Your task to perform on an android device: snooze an email in the gmail app Image 0: 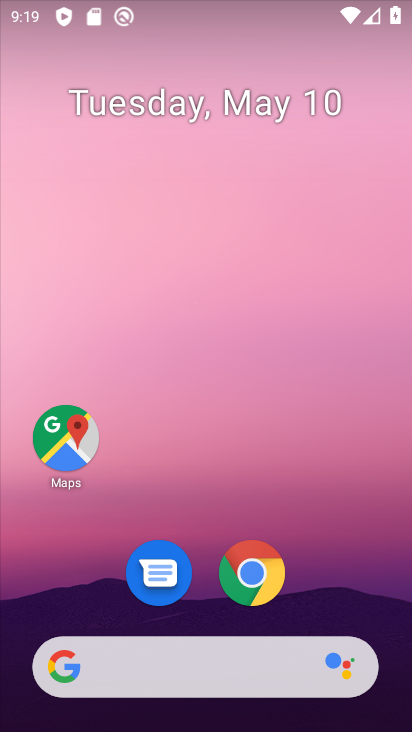
Step 0: drag from (192, 519) to (129, 140)
Your task to perform on an android device: snooze an email in the gmail app Image 1: 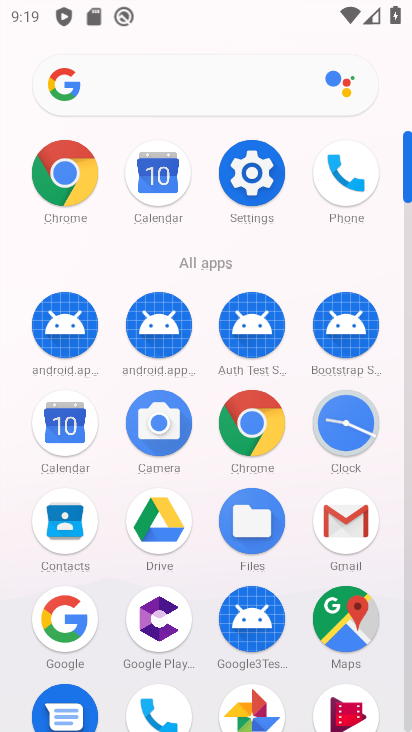
Step 1: click (336, 518)
Your task to perform on an android device: snooze an email in the gmail app Image 2: 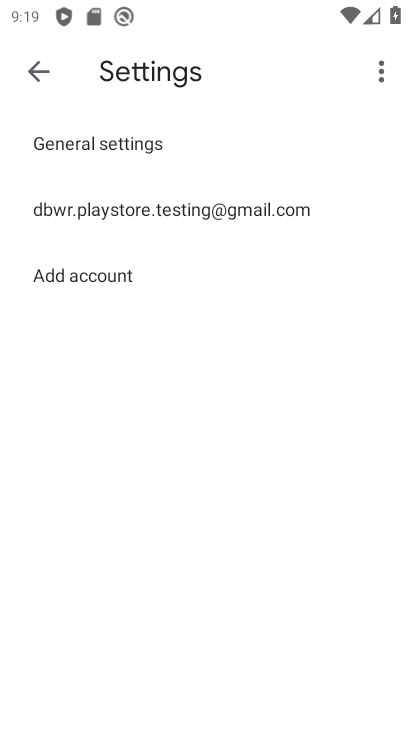
Step 2: click (36, 70)
Your task to perform on an android device: snooze an email in the gmail app Image 3: 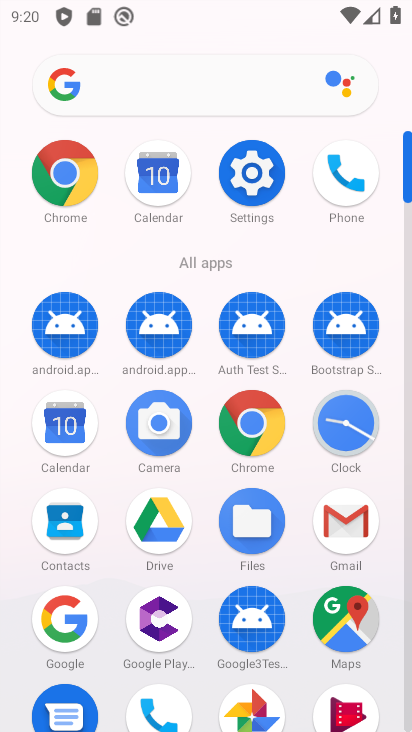
Step 3: click (347, 521)
Your task to perform on an android device: snooze an email in the gmail app Image 4: 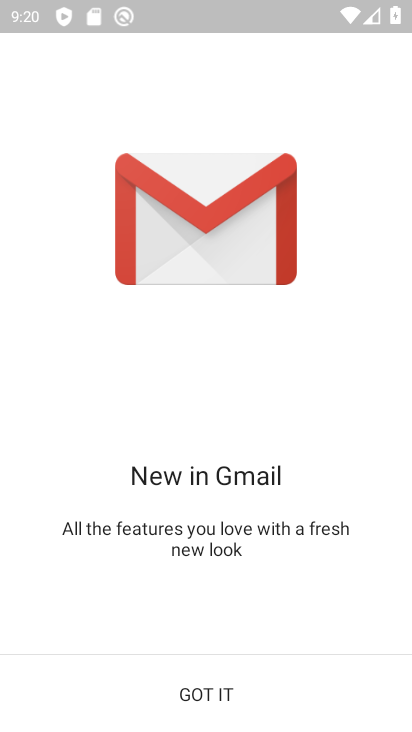
Step 4: click (195, 696)
Your task to perform on an android device: snooze an email in the gmail app Image 5: 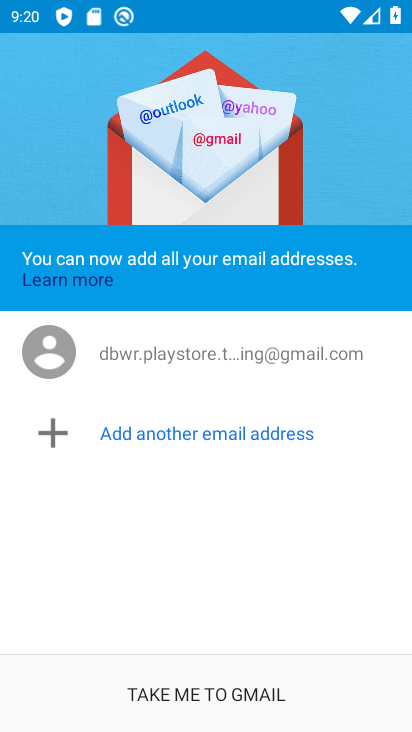
Step 5: click (206, 690)
Your task to perform on an android device: snooze an email in the gmail app Image 6: 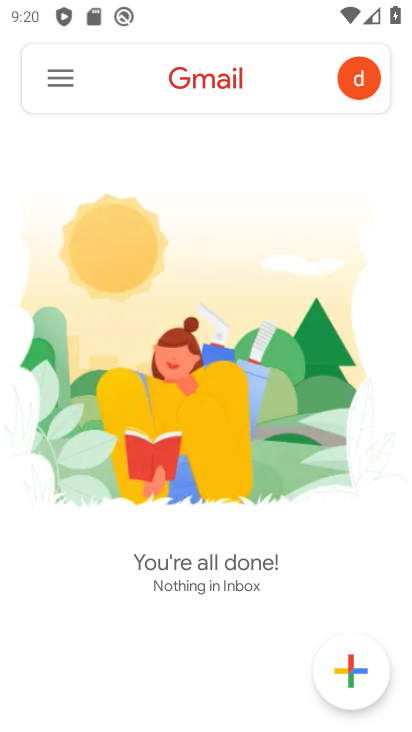
Step 6: click (60, 78)
Your task to perform on an android device: snooze an email in the gmail app Image 7: 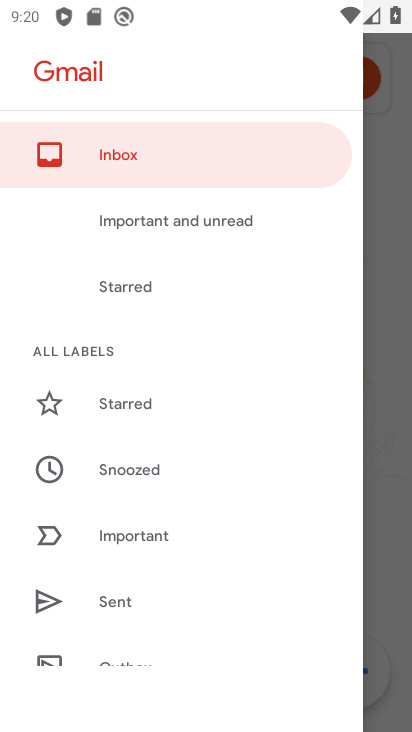
Step 7: drag from (183, 569) to (159, 370)
Your task to perform on an android device: snooze an email in the gmail app Image 8: 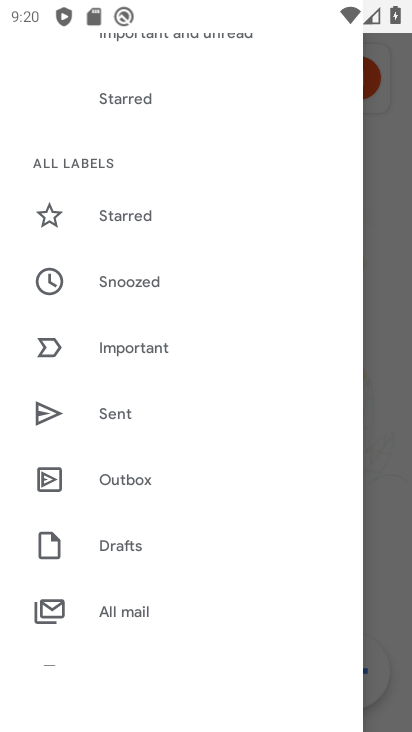
Step 8: click (128, 607)
Your task to perform on an android device: snooze an email in the gmail app Image 9: 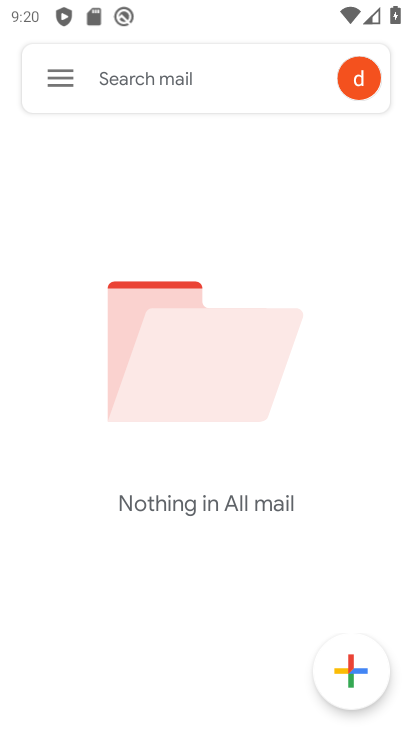
Step 9: task complete